Your task to perform on an android device: Go to settings Image 0: 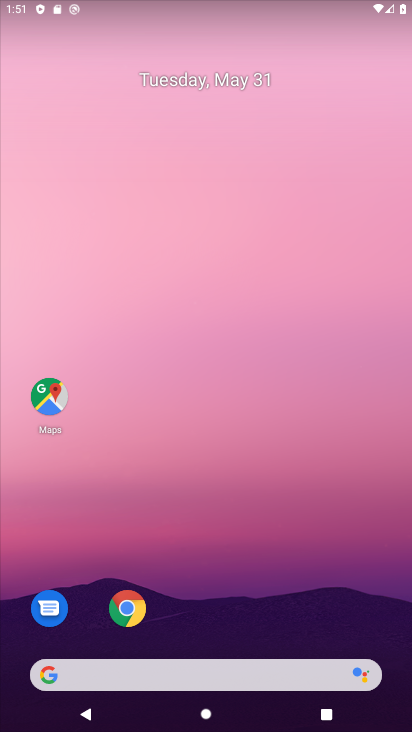
Step 0: drag from (312, 237) to (306, 136)
Your task to perform on an android device: Go to settings Image 1: 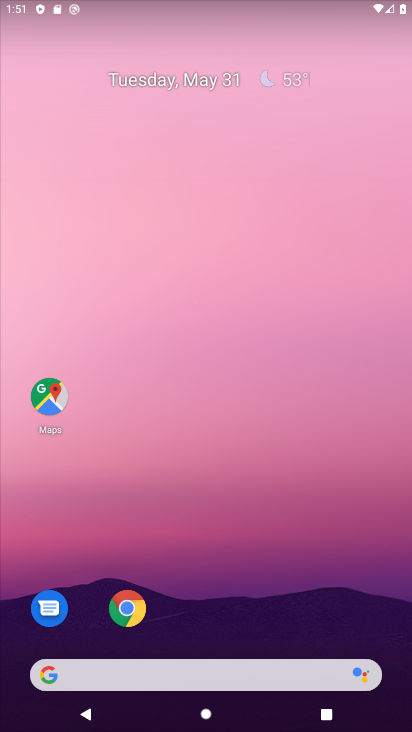
Step 1: drag from (298, 318) to (305, 128)
Your task to perform on an android device: Go to settings Image 2: 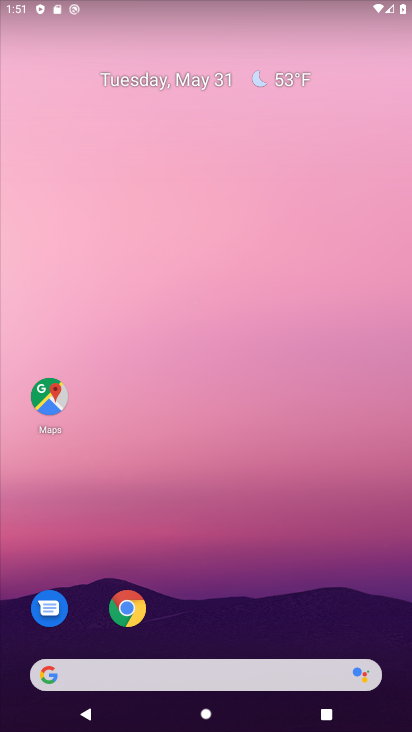
Step 2: drag from (276, 205) to (298, 5)
Your task to perform on an android device: Go to settings Image 3: 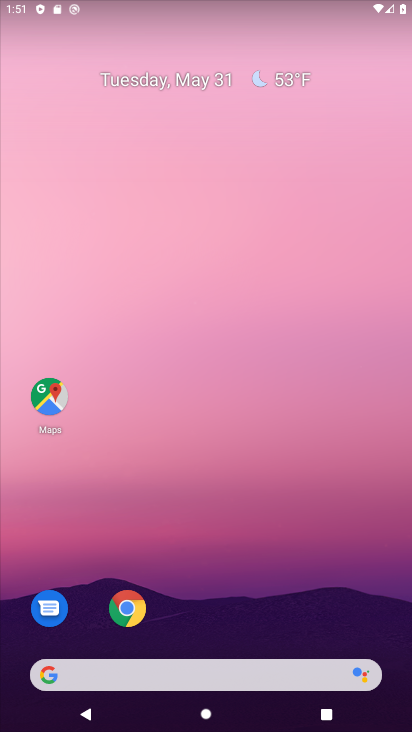
Step 3: drag from (250, 598) to (342, 0)
Your task to perform on an android device: Go to settings Image 4: 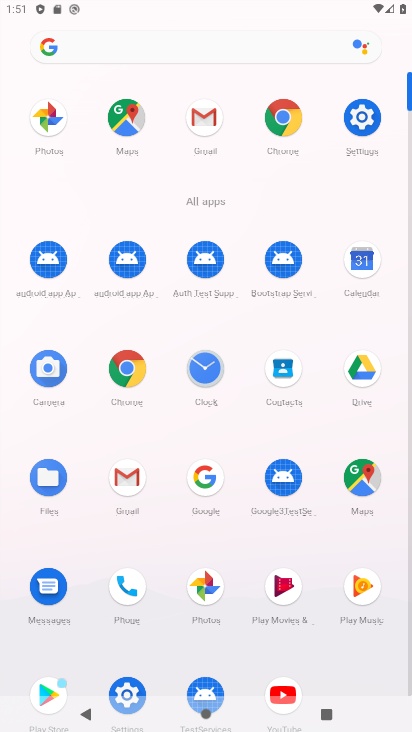
Step 4: click (364, 120)
Your task to perform on an android device: Go to settings Image 5: 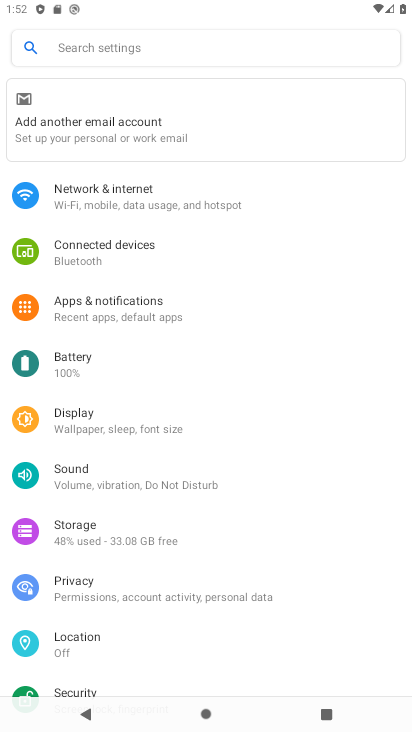
Step 5: task complete